Your task to perform on an android device: Turn on the flashlight Image 0: 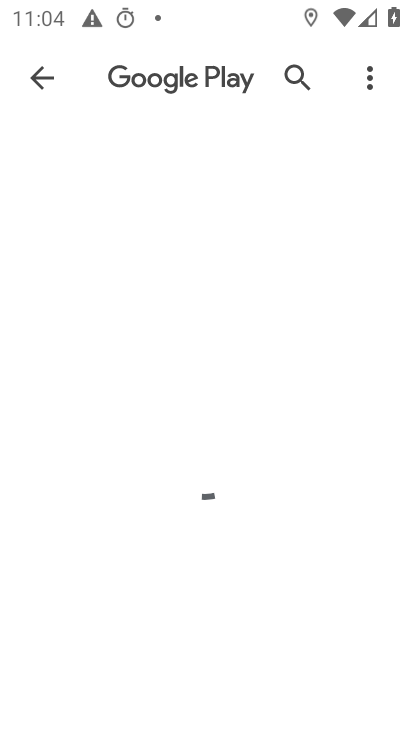
Step 0: press home button
Your task to perform on an android device: Turn on the flashlight Image 1: 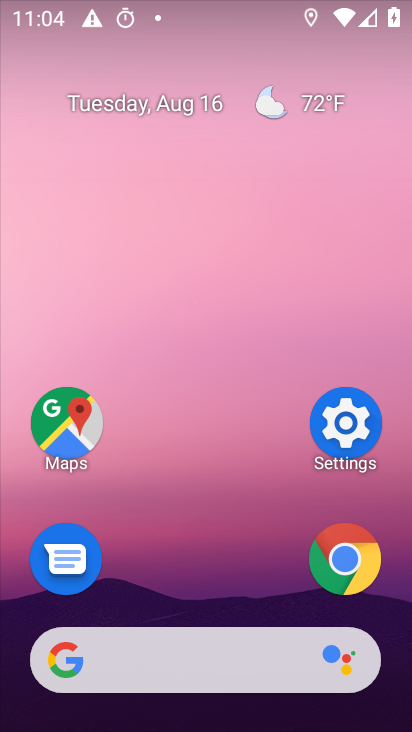
Step 1: task complete